Your task to perform on an android device: Go to battery settings Image 0: 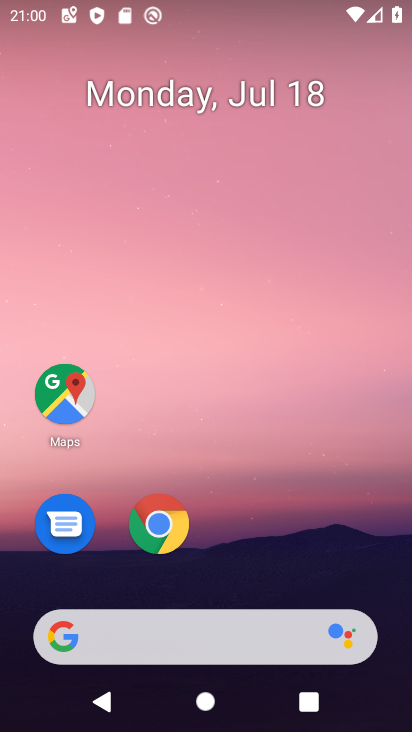
Step 0: drag from (268, 553) to (317, 2)
Your task to perform on an android device: Go to battery settings Image 1: 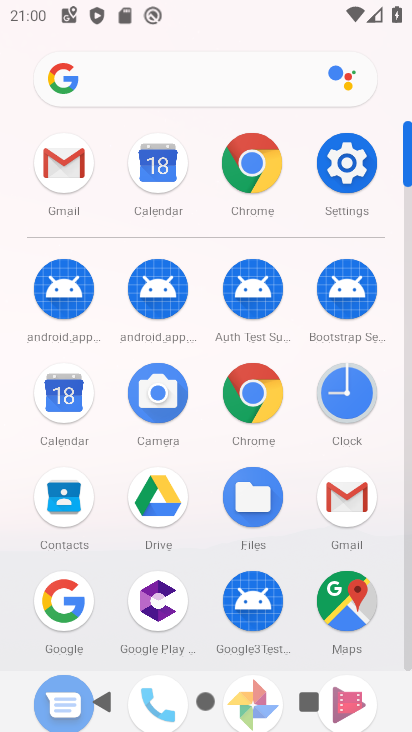
Step 1: click (354, 166)
Your task to perform on an android device: Go to battery settings Image 2: 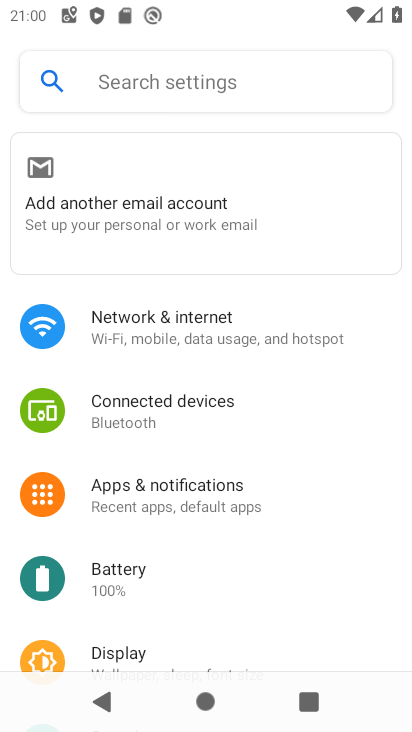
Step 2: click (110, 574)
Your task to perform on an android device: Go to battery settings Image 3: 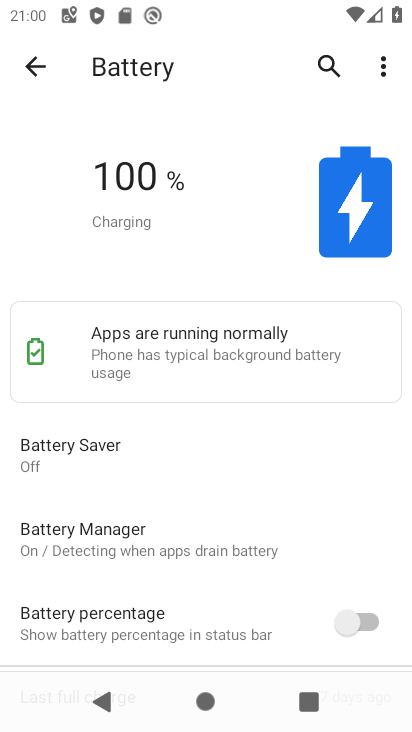
Step 3: task complete